Your task to perform on an android device: Open Yahoo.com Image 0: 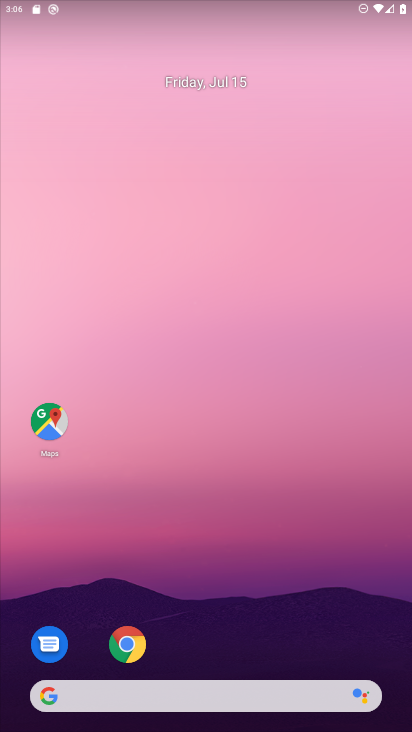
Step 0: click (139, 641)
Your task to perform on an android device: Open Yahoo.com Image 1: 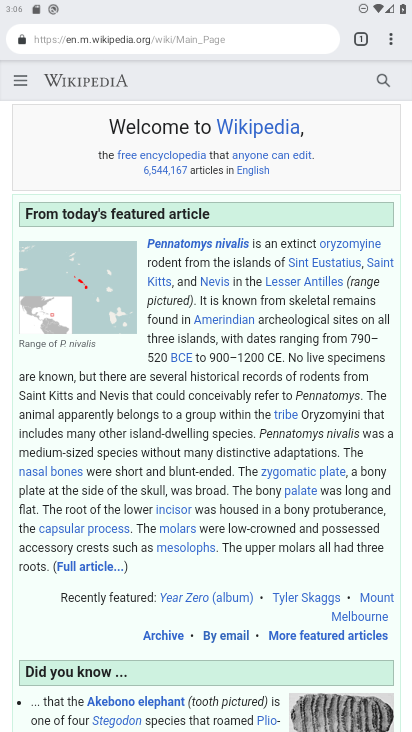
Step 1: click (352, 41)
Your task to perform on an android device: Open Yahoo.com Image 2: 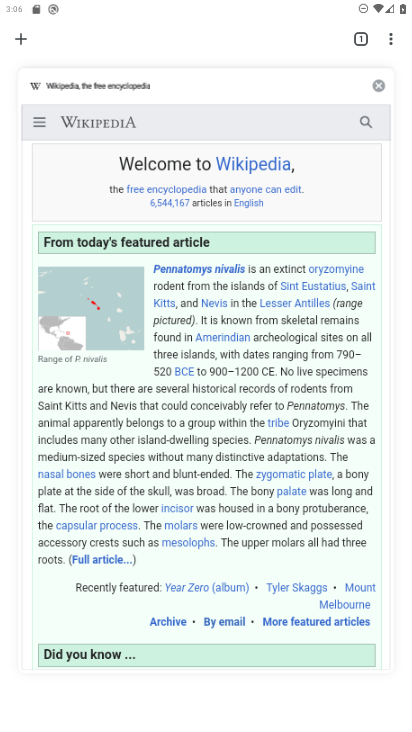
Step 2: click (386, 84)
Your task to perform on an android device: Open Yahoo.com Image 3: 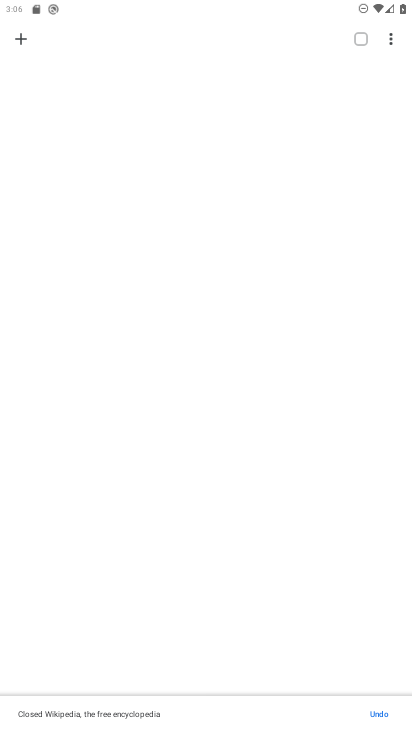
Step 3: click (22, 45)
Your task to perform on an android device: Open Yahoo.com Image 4: 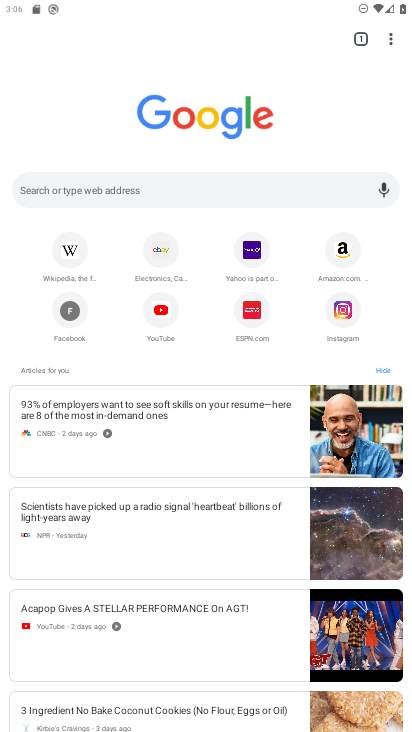
Step 4: click (247, 263)
Your task to perform on an android device: Open Yahoo.com Image 5: 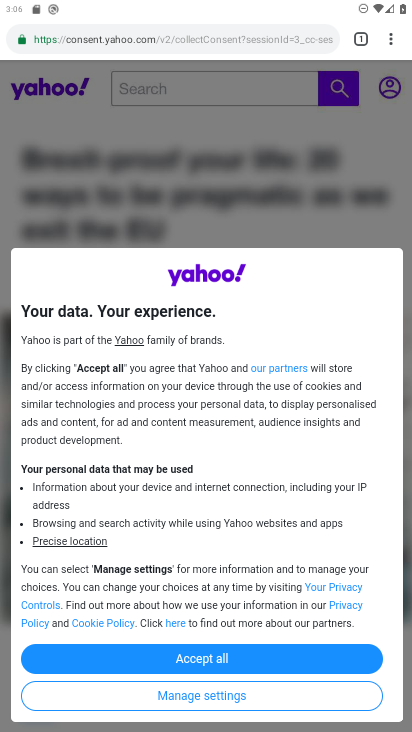
Step 5: task complete